Your task to perform on an android device: all mails in gmail Image 0: 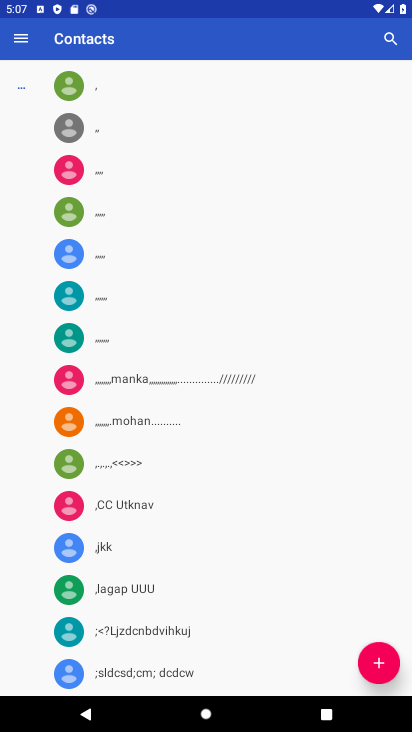
Step 0: press home button
Your task to perform on an android device: all mails in gmail Image 1: 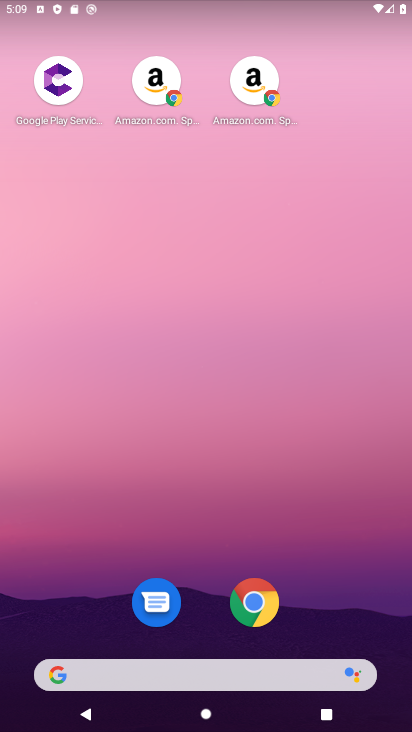
Step 1: drag from (200, 665) to (252, 78)
Your task to perform on an android device: all mails in gmail Image 2: 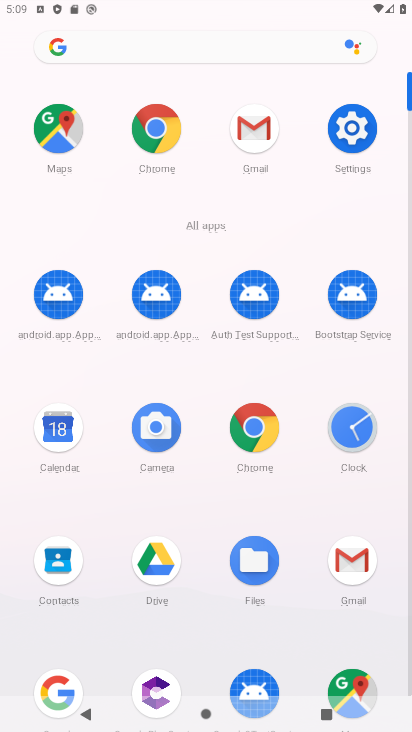
Step 2: click (350, 578)
Your task to perform on an android device: all mails in gmail Image 3: 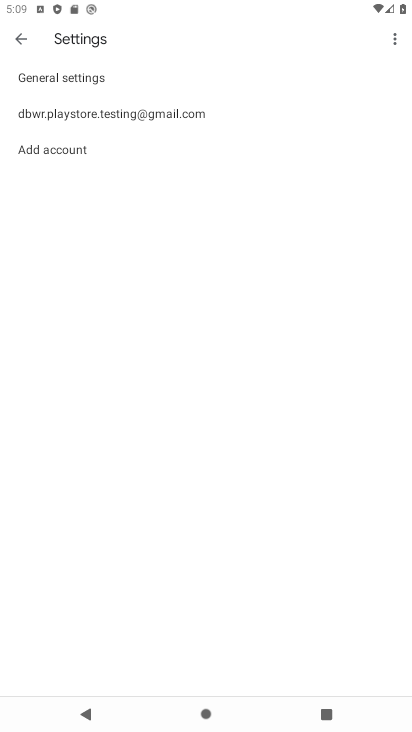
Step 3: press back button
Your task to perform on an android device: all mails in gmail Image 4: 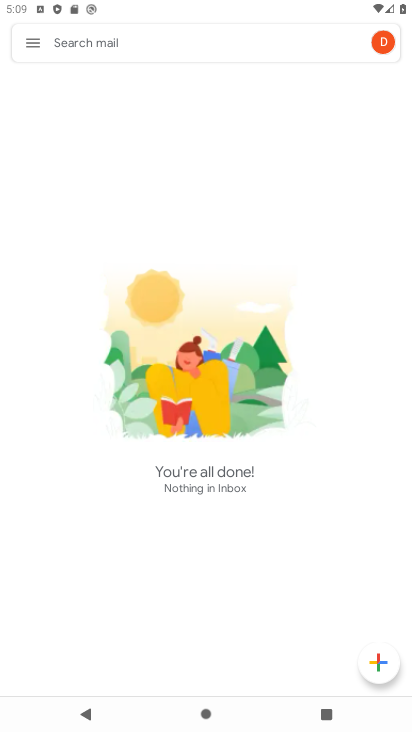
Step 4: click (39, 44)
Your task to perform on an android device: all mails in gmail Image 5: 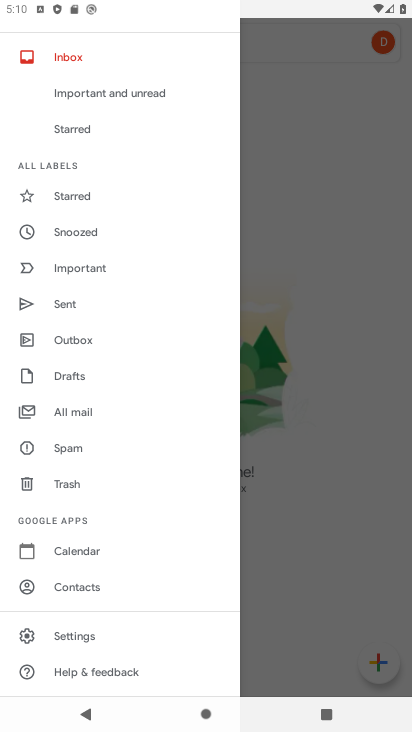
Step 5: click (80, 415)
Your task to perform on an android device: all mails in gmail Image 6: 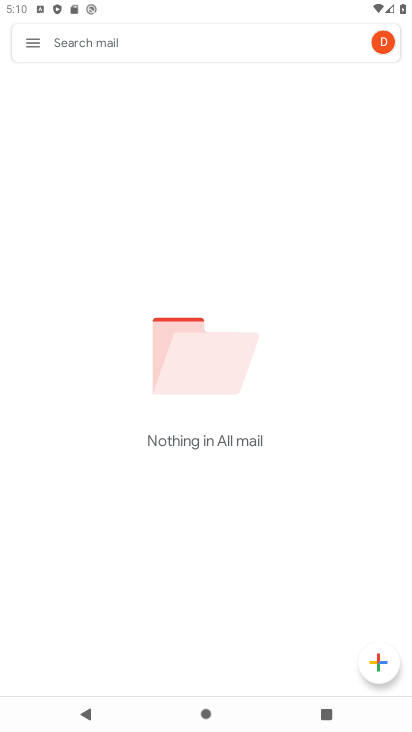
Step 6: task complete